Your task to perform on an android device: Open calendar and show me the second week of next month Image 0: 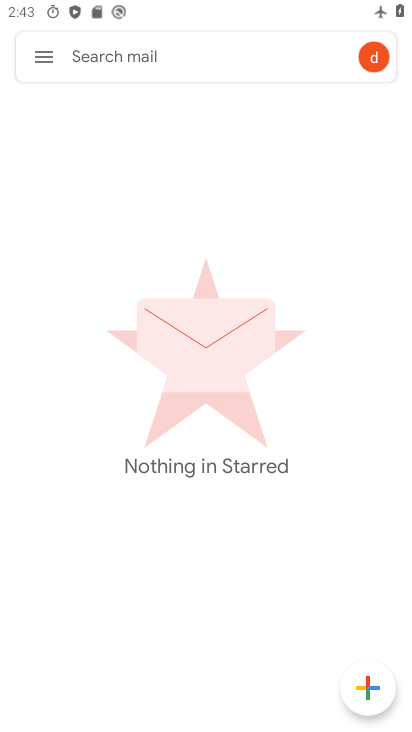
Step 0: press home button
Your task to perform on an android device: Open calendar and show me the second week of next month Image 1: 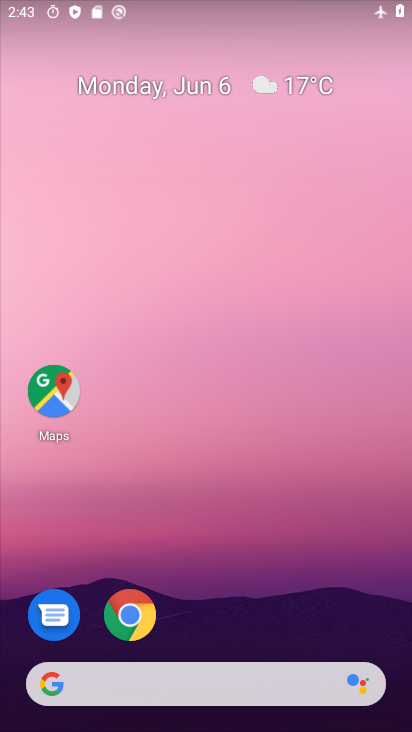
Step 1: press home button
Your task to perform on an android device: Open calendar and show me the second week of next month Image 2: 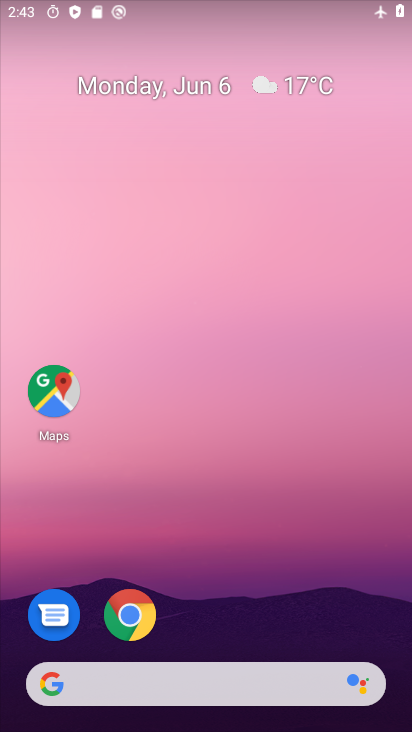
Step 2: drag from (182, 509) to (247, 288)
Your task to perform on an android device: Open calendar and show me the second week of next month Image 3: 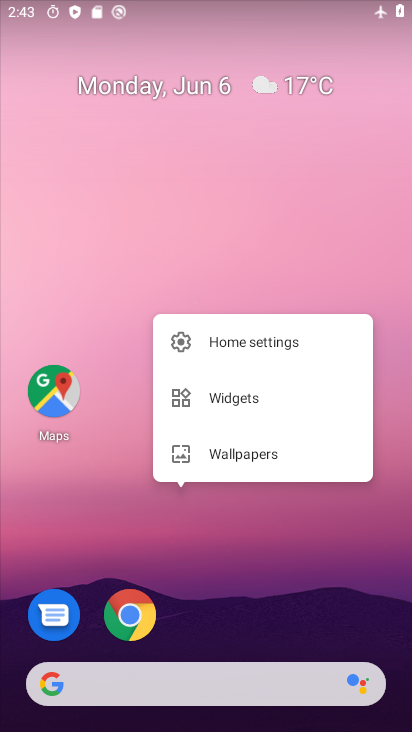
Step 3: drag from (230, 466) to (298, 19)
Your task to perform on an android device: Open calendar and show me the second week of next month Image 4: 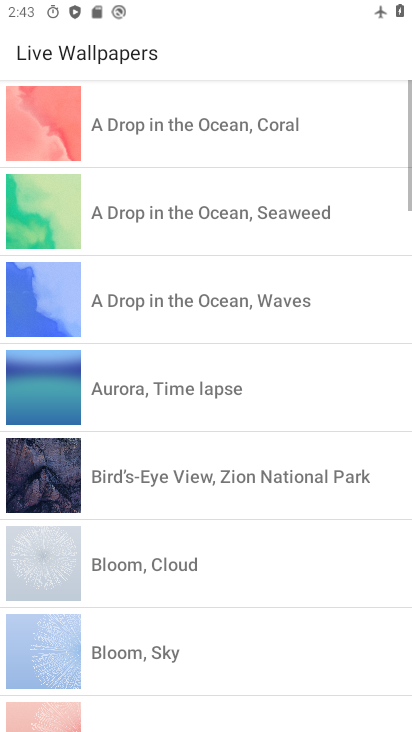
Step 4: click (301, 508)
Your task to perform on an android device: Open calendar and show me the second week of next month Image 5: 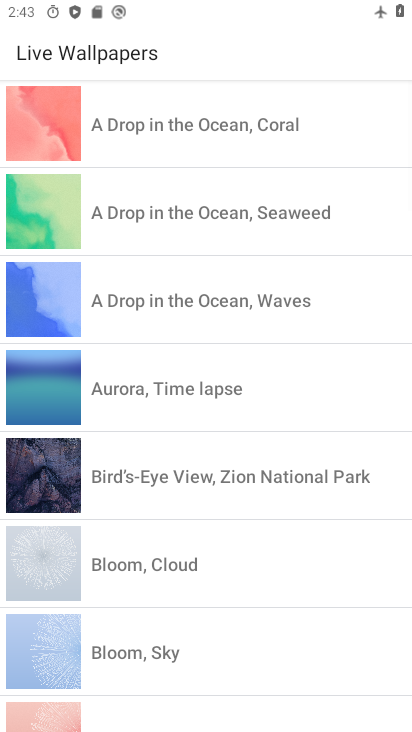
Step 5: drag from (214, 569) to (247, 334)
Your task to perform on an android device: Open calendar and show me the second week of next month Image 6: 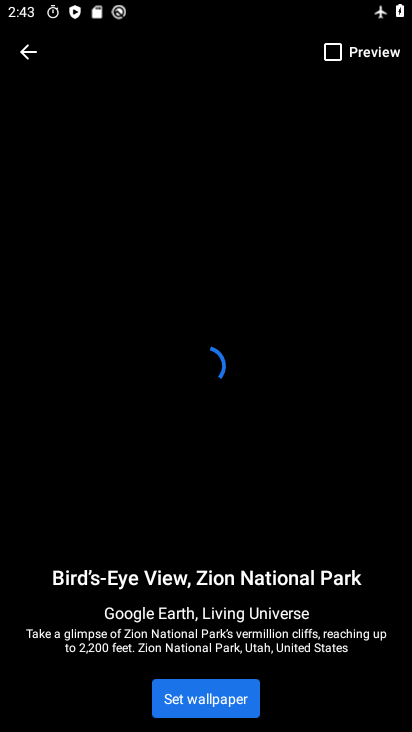
Step 6: press home button
Your task to perform on an android device: Open calendar and show me the second week of next month Image 7: 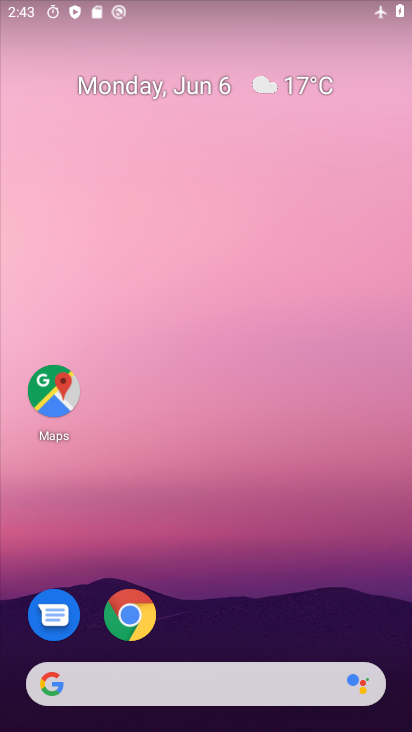
Step 7: drag from (201, 612) to (278, 1)
Your task to perform on an android device: Open calendar and show me the second week of next month Image 8: 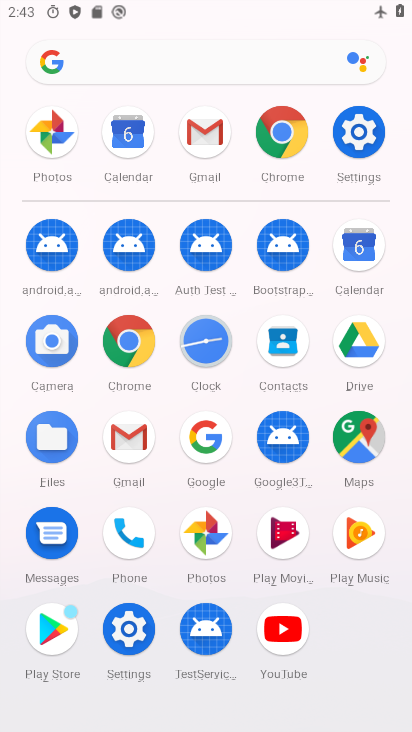
Step 8: click (354, 260)
Your task to perform on an android device: Open calendar and show me the second week of next month Image 9: 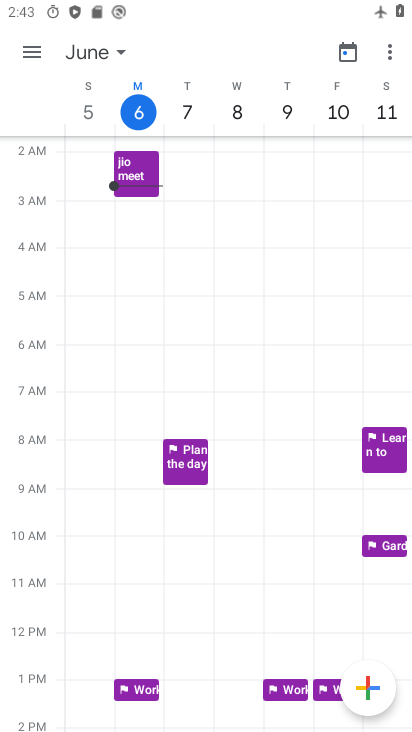
Step 9: drag from (378, 104) to (25, 98)
Your task to perform on an android device: Open calendar and show me the second week of next month Image 10: 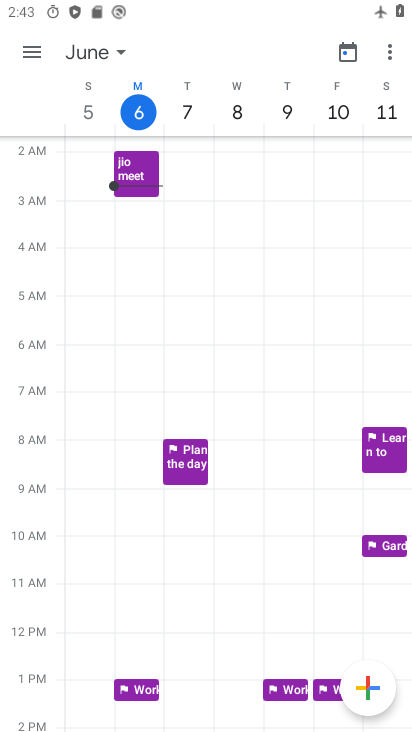
Step 10: click (106, 51)
Your task to perform on an android device: Open calendar and show me the second week of next month Image 11: 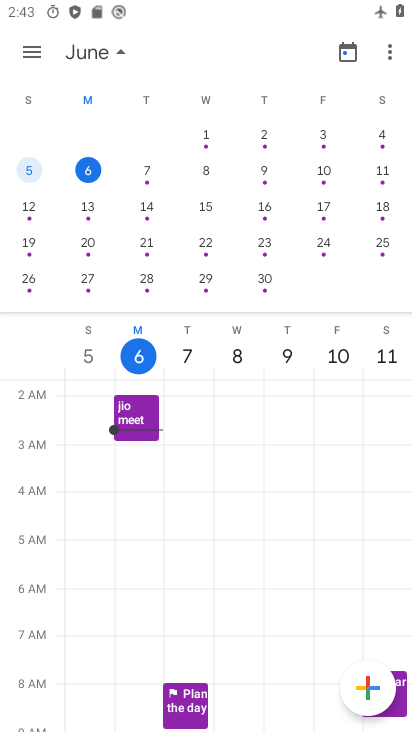
Step 11: drag from (366, 202) to (73, 134)
Your task to perform on an android device: Open calendar and show me the second week of next month Image 12: 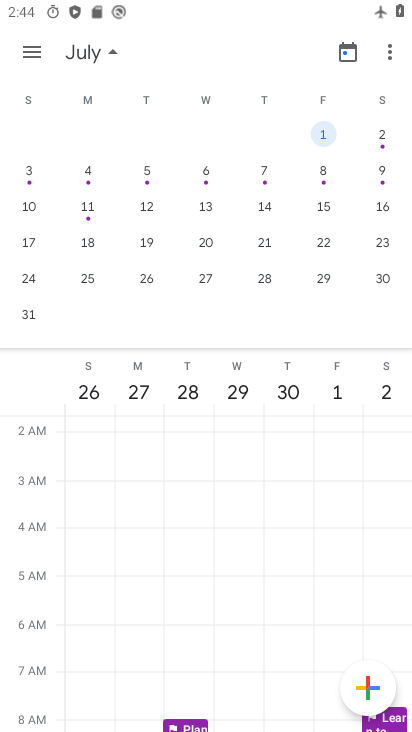
Step 12: click (156, 204)
Your task to perform on an android device: Open calendar and show me the second week of next month Image 13: 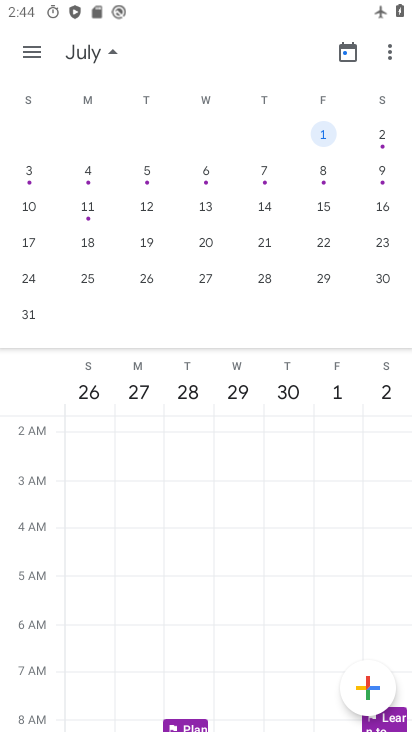
Step 13: click (143, 206)
Your task to perform on an android device: Open calendar and show me the second week of next month Image 14: 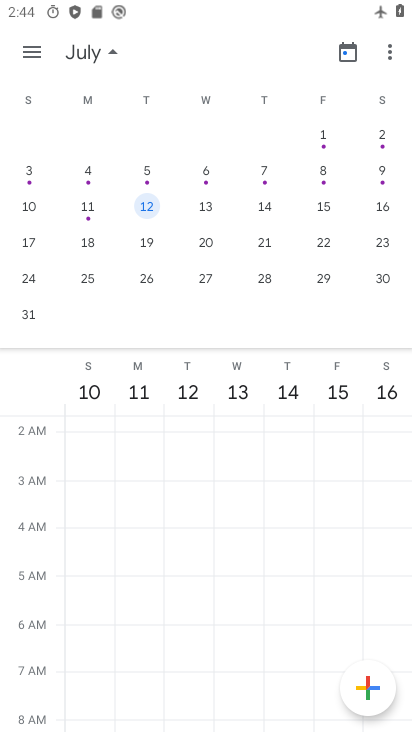
Step 14: click (37, 47)
Your task to perform on an android device: Open calendar and show me the second week of next month Image 15: 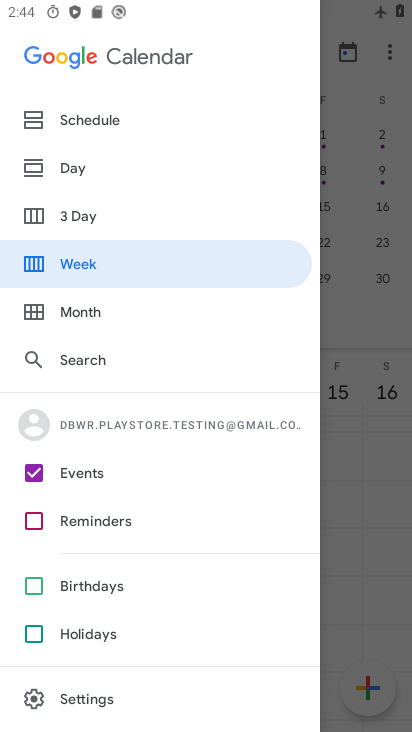
Step 15: click (87, 273)
Your task to perform on an android device: Open calendar and show me the second week of next month Image 16: 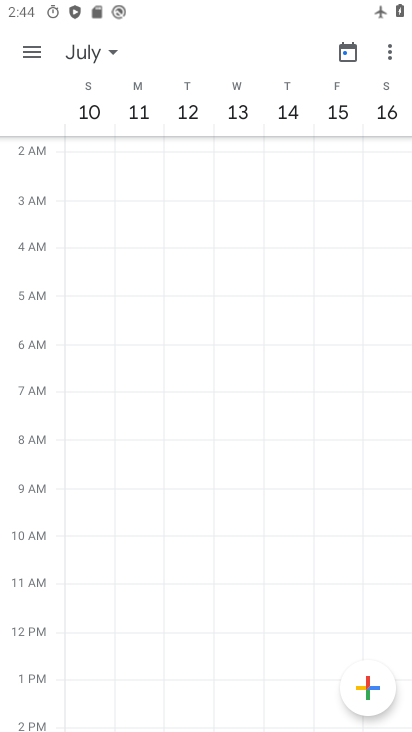
Step 16: task complete